Your task to perform on an android device: Open location settings Image 0: 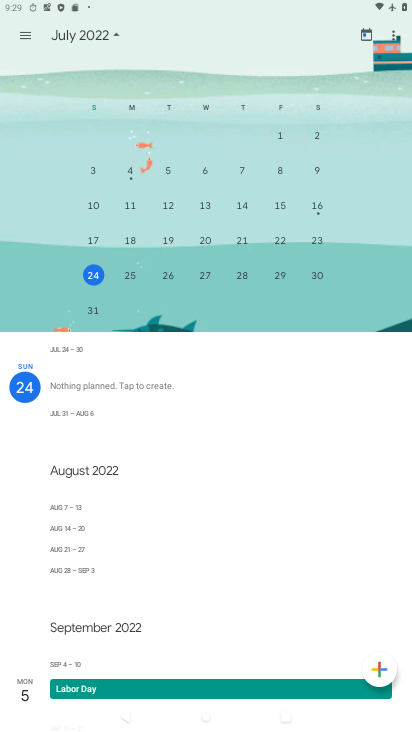
Step 0: press home button
Your task to perform on an android device: Open location settings Image 1: 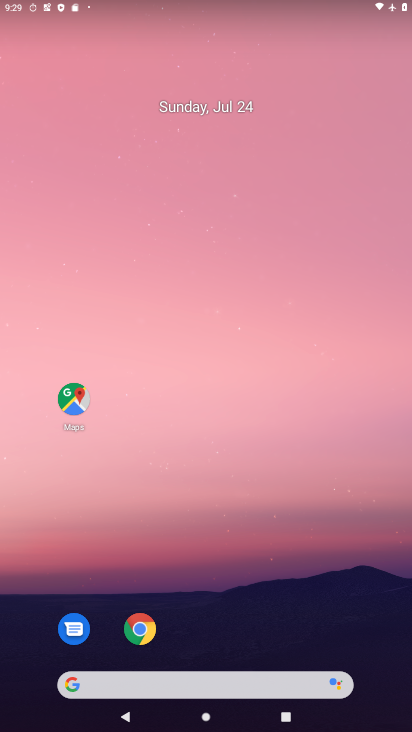
Step 1: drag from (187, 587) to (217, 144)
Your task to perform on an android device: Open location settings Image 2: 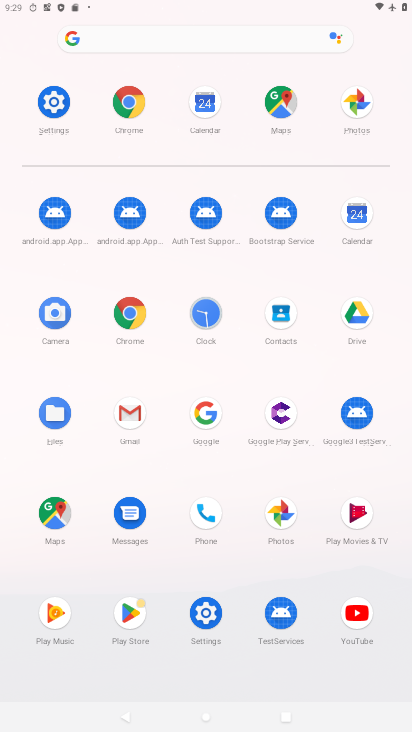
Step 2: click (56, 115)
Your task to perform on an android device: Open location settings Image 3: 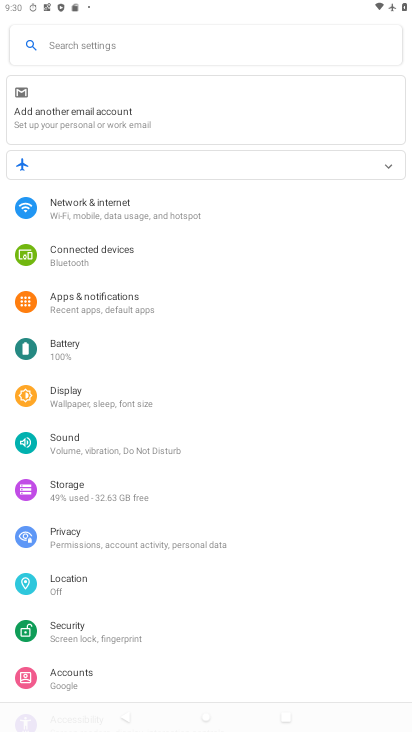
Step 3: click (51, 586)
Your task to perform on an android device: Open location settings Image 4: 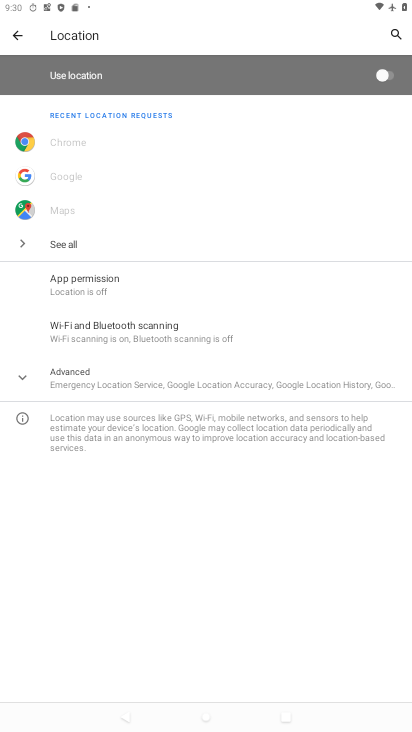
Step 4: task complete